Your task to perform on an android device: change notification settings in the gmail app Image 0: 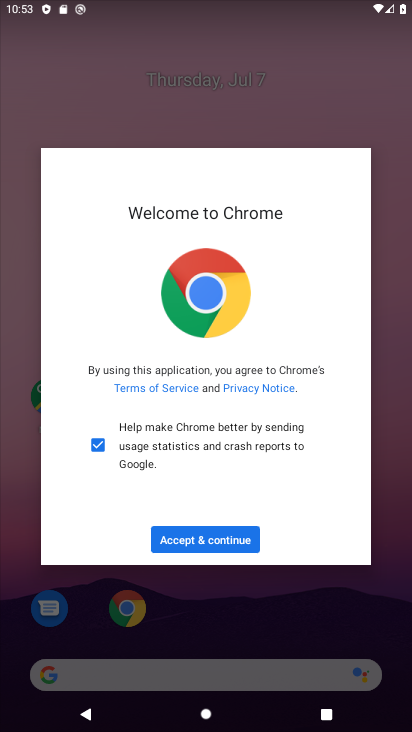
Step 0: press home button
Your task to perform on an android device: change notification settings in the gmail app Image 1: 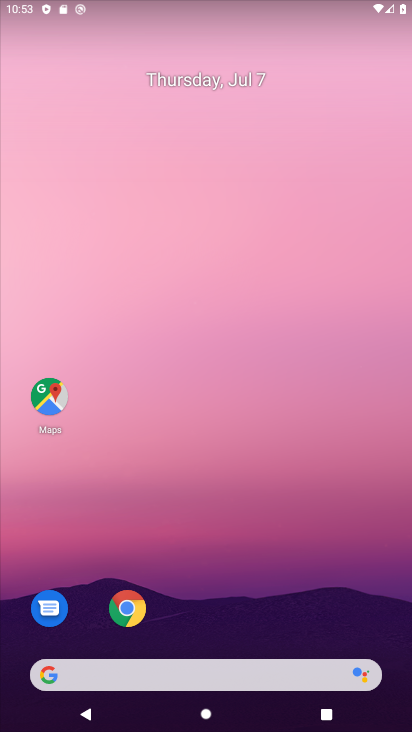
Step 1: drag from (239, 694) to (213, 341)
Your task to perform on an android device: change notification settings in the gmail app Image 2: 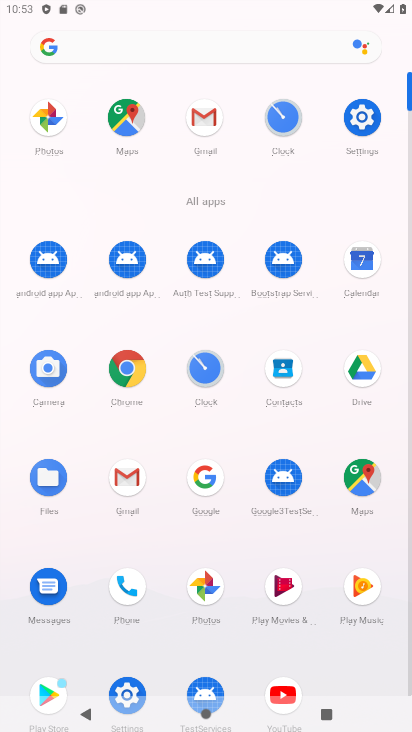
Step 2: click (193, 118)
Your task to perform on an android device: change notification settings in the gmail app Image 3: 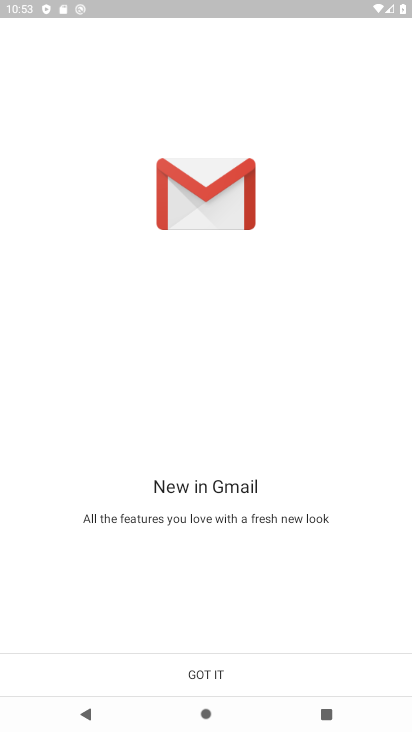
Step 3: click (238, 681)
Your task to perform on an android device: change notification settings in the gmail app Image 4: 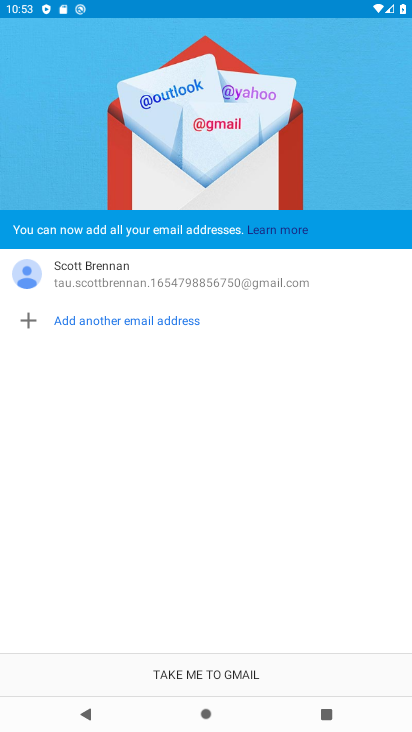
Step 4: click (229, 673)
Your task to perform on an android device: change notification settings in the gmail app Image 5: 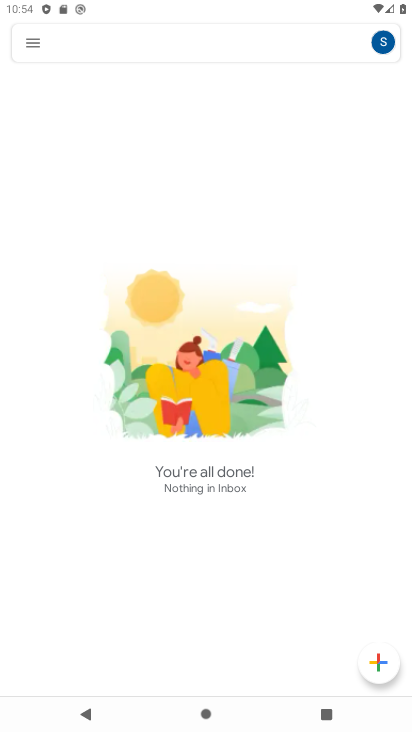
Step 5: click (38, 37)
Your task to perform on an android device: change notification settings in the gmail app Image 6: 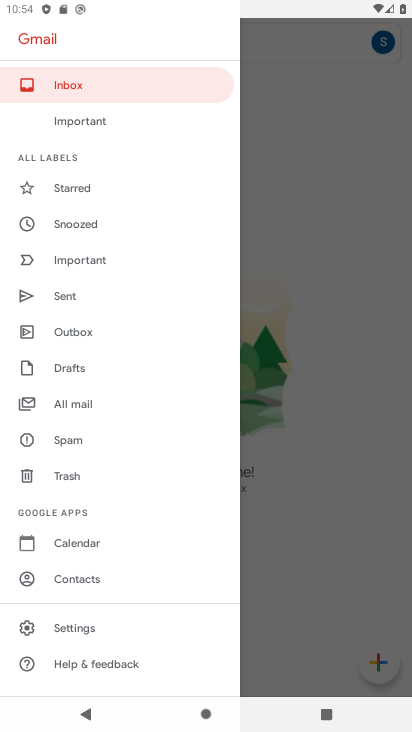
Step 6: click (114, 630)
Your task to perform on an android device: change notification settings in the gmail app Image 7: 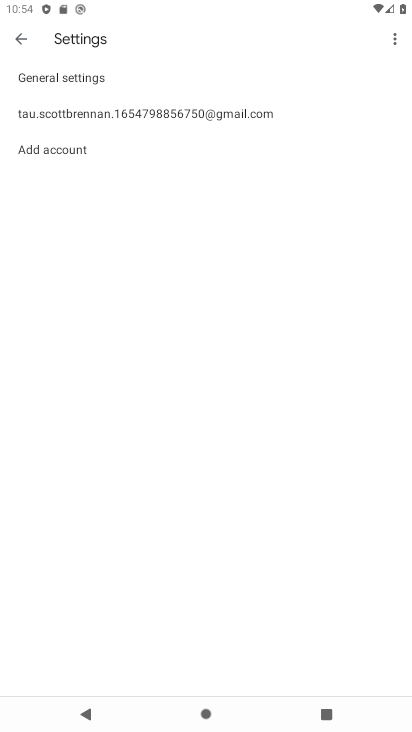
Step 7: click (98, 66)
Your task to perform on an android device: change notification settings in the gmail app Image 8: 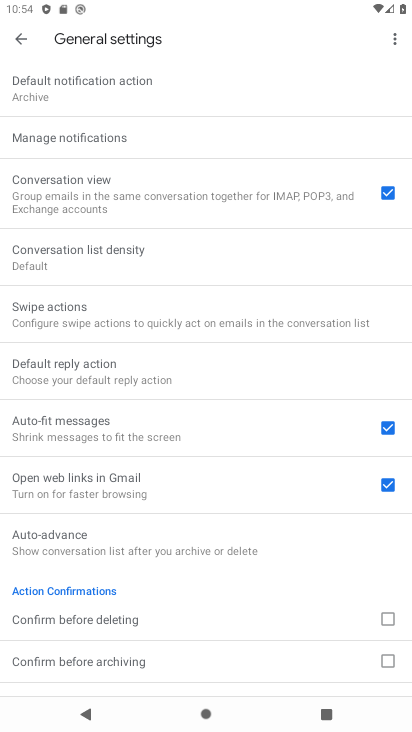
Step 8: click (17, 43)
Your task to perform on an android device: change notification settings in the gmail app Image 9: 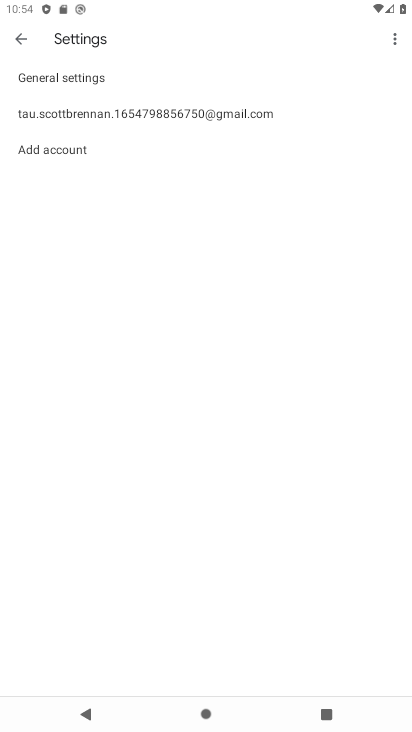
Step 9: click (119, 108)
Your task to perform on an android device: change notification settings in the gmail app Image 10: 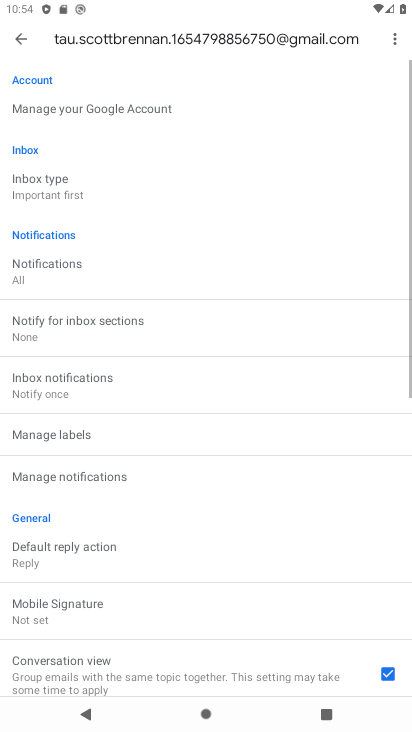
Step 10: click (89, 262)
Your task to perform on an android device: change notification settings in the gmail app Image 11: 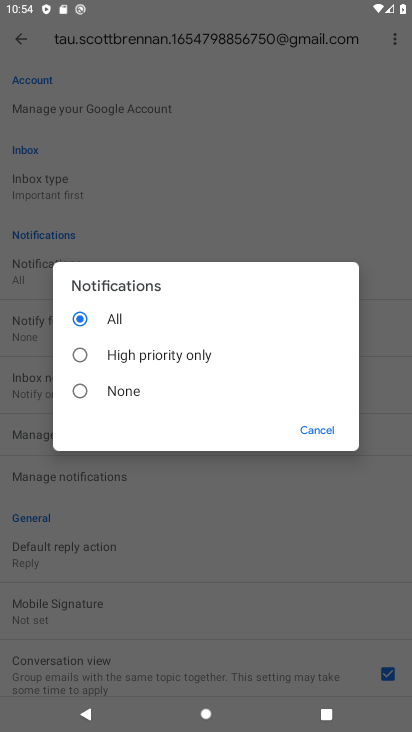
Step 11: click (122, 407)
Your task to perform on an android device: change notification settings in the gmail app Image 12: 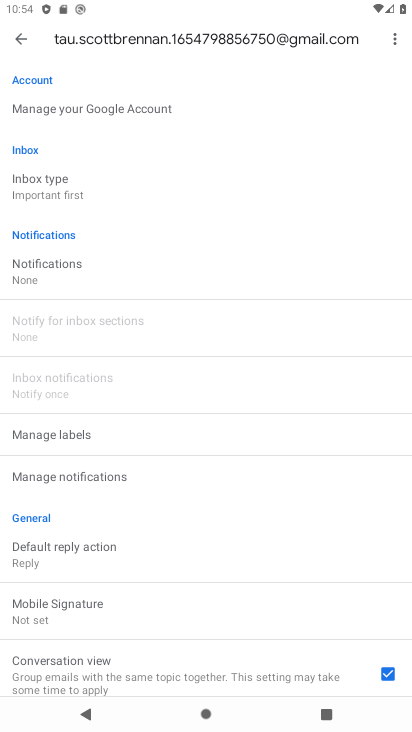
Step 12: task complete